Your task to perform on an android device: toggle improve location accuracy Image 0: 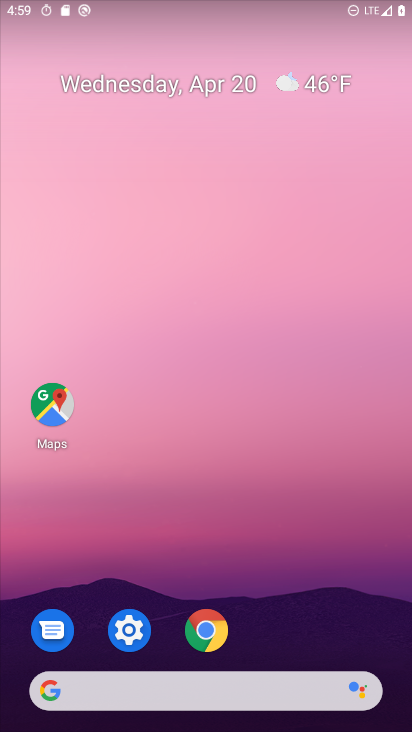
Step 0: drag from (230, 634) to (241, 39)
Your task to perform on an android device: toggle improve location accuracy Image 1: 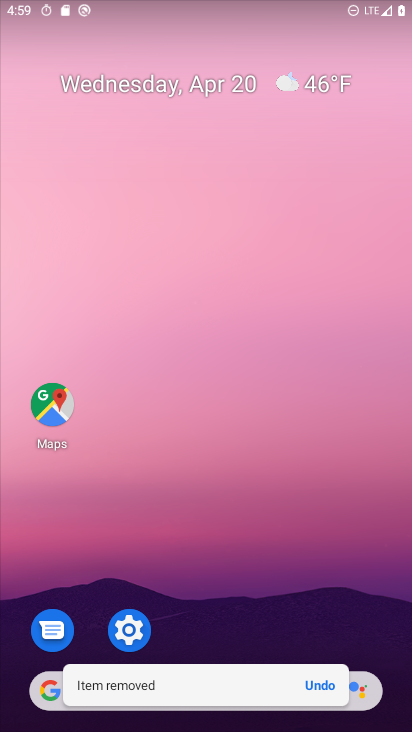
Step 1: drag from (191, 372) to (172, 99)
Your task to perform on an android device: toggle improve location accuracy Image 2: 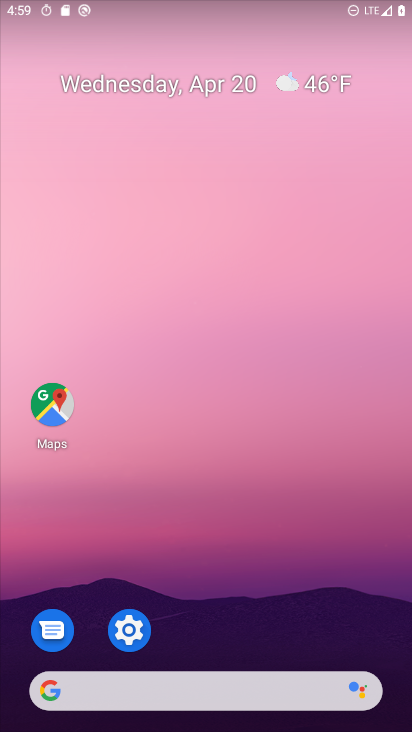
Step 2: drag from (248, 544) to (227, 0)
Your task to perform on an android device: toggle improve location accuracy Image 3: 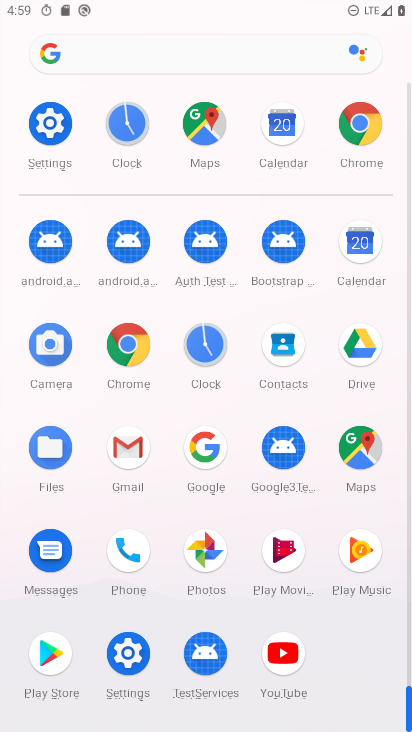
Step 3: click (117, 646)
Your task to perform on an android device: toggle improve location accuracy Image 4: 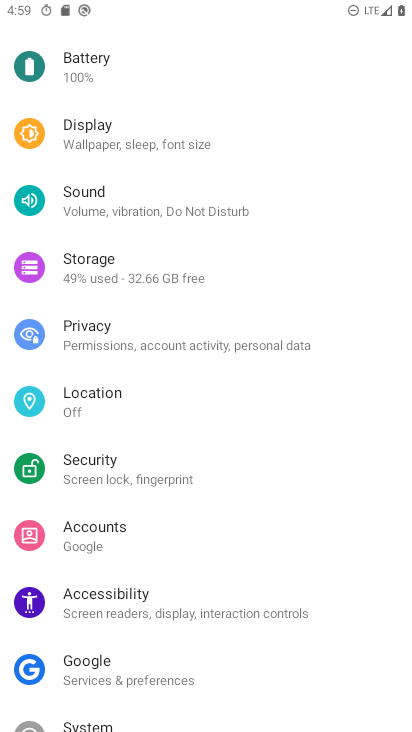
Step 4: click (99, 401)
Your task to perform on an android device: toggle improve location accuracy Image 5: 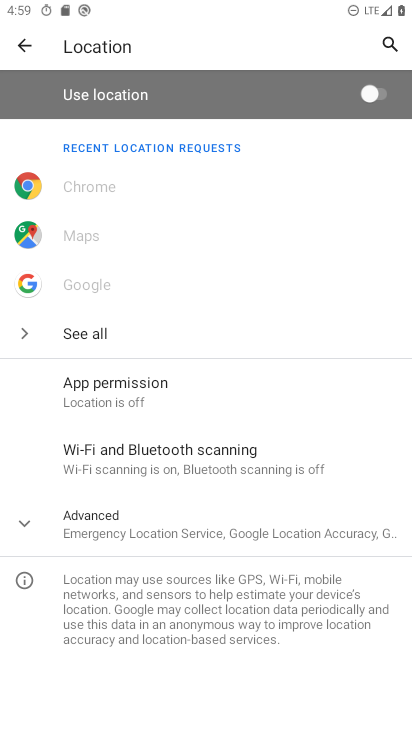
Step 5: click (185, 533)
Your task to perform on an android device: toggle improve location accuracy Image 6: 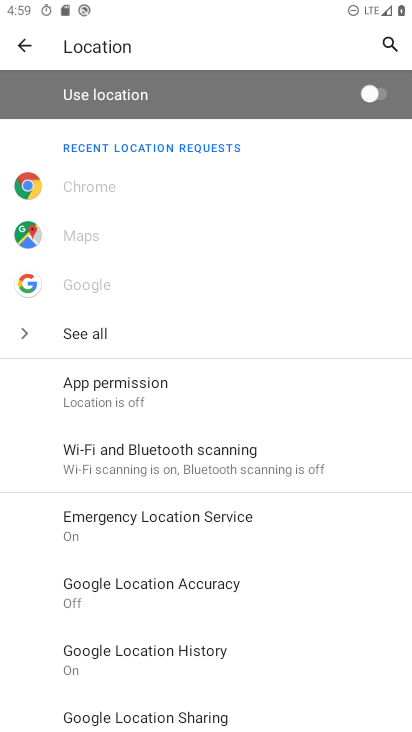
Step 6: click (202, 597)
Your task to perform on an android device: toggle improve location accuracy Image 7: 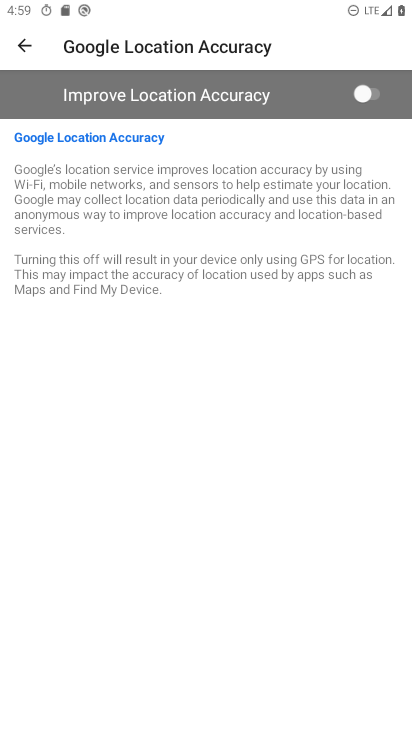
Step 7: click (377, 93)
Your task to perform on an android device: toggle improve location accuracy Image 8: 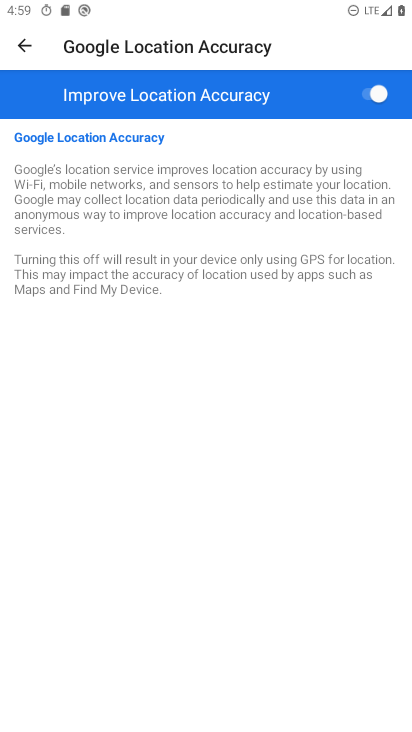
Step 8: task complete